Your task to perform on an android device: Open Google Chrome and click the shortcut for Amazon.com Image 0: 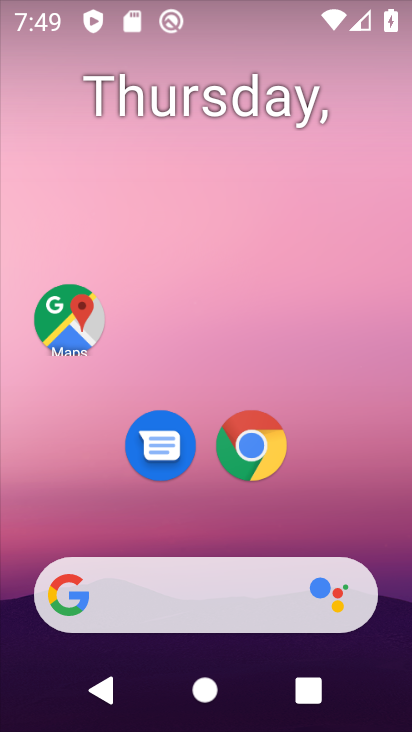
Step 0: click (238, 450)
Your task to perform on an android device: Open Google Chrome and click the shortcut for Amazon.com Image 1: 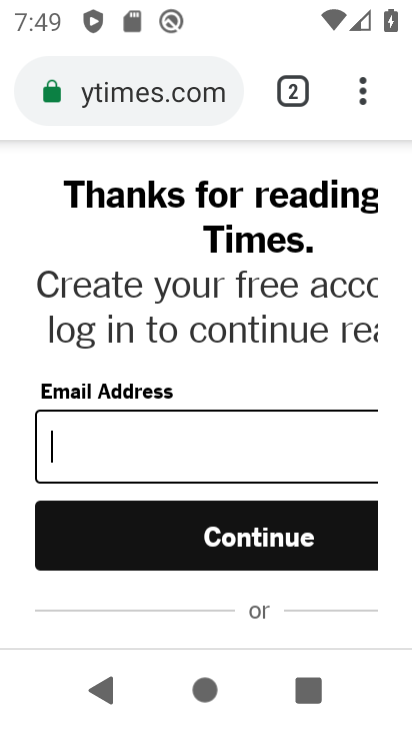
Step 1: click (362, 92)
Your task to perform on an android device: Open Google Chrome and click the shortcut for Amazon.com Image 2: 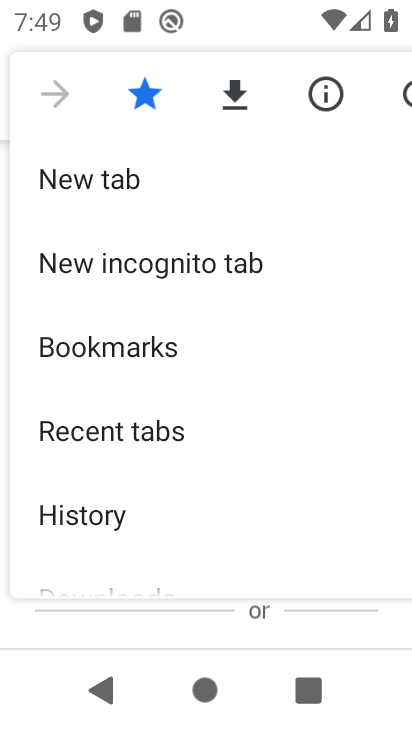
Step 2: click (61, 190)
Your task to perform on an android device: Open Google Chrome and click the shortcut for Amazon.com Image 3: 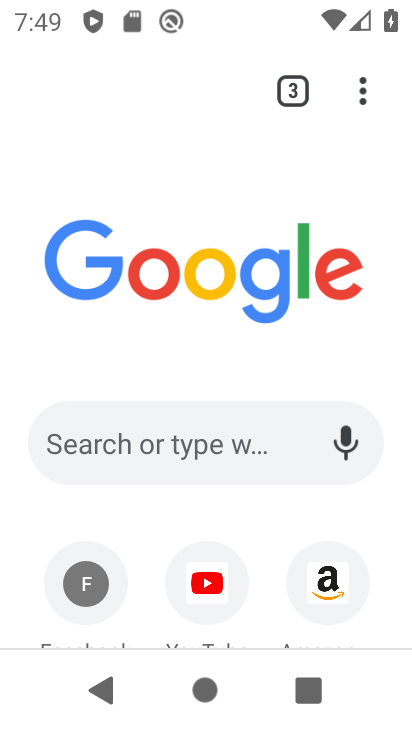
Step 3: click (319, 589)
Your task to perform on an android device: Open Google Chrome and click the shortcut for Amazon.com Image 4: 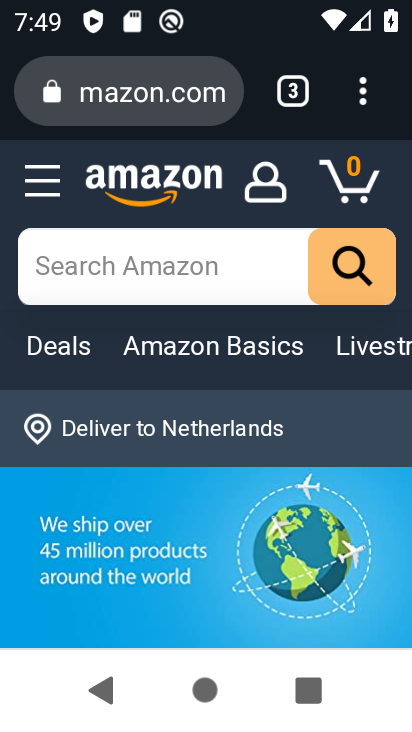
Step 4: task complete